Your task to perform on an android device: Open network settings Image 0: 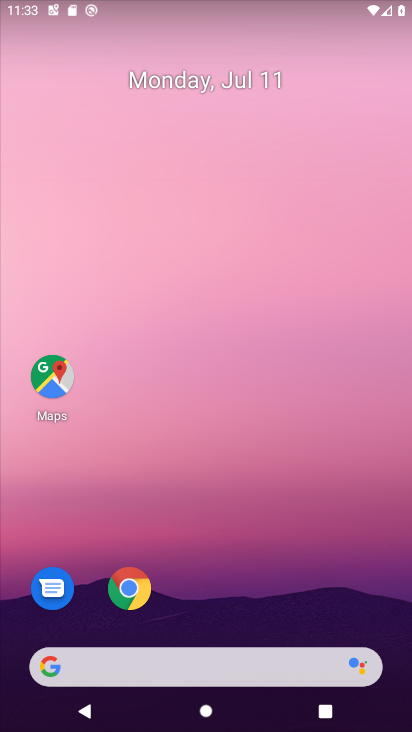
Step 0: click (278, 365)
Your task to perform on an android device: Open network settings Image 1: 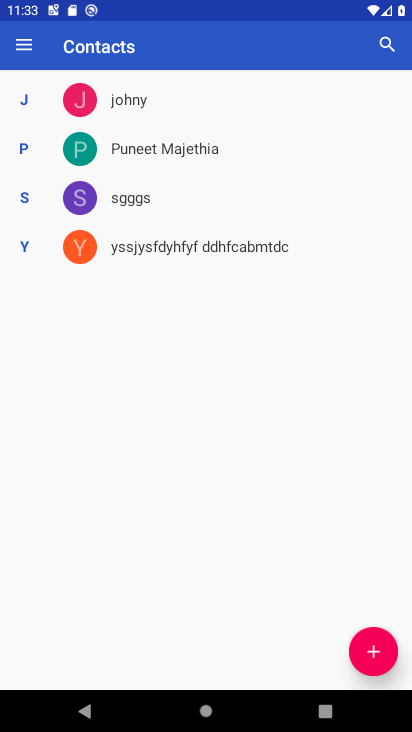
Step 1: press back button
Your task to perform on an android device: Open network settings Image 2: 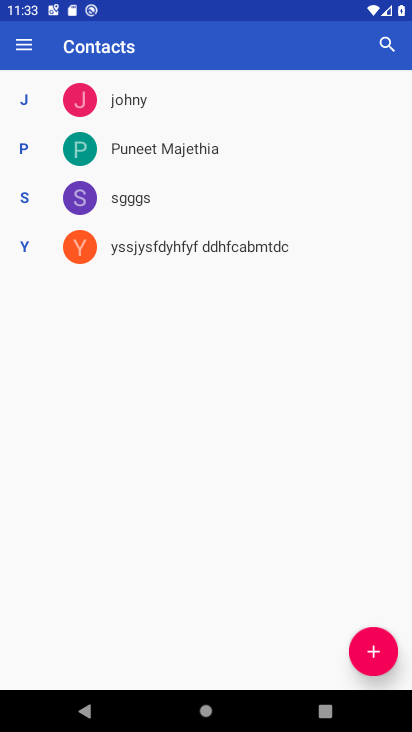
Step 2: press back button
Your task to perform on an android device: Open network settings Image 3: 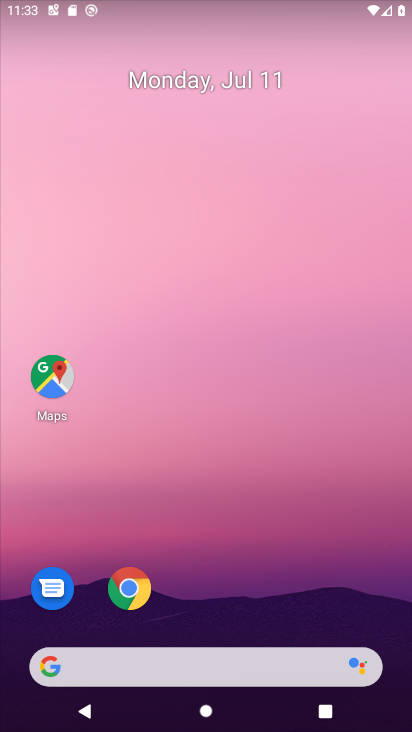
Step 3: drag from (276, 707) to (276, 279)
Your task to perform on an android device: Open network settings Image 4: 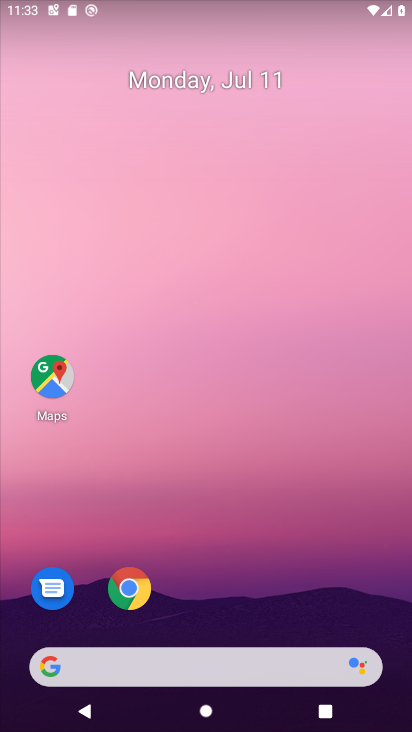
Step 4: drag from (258, 586) to (208, 87)
Your task to perform on an android device: Open network settings Image 5: 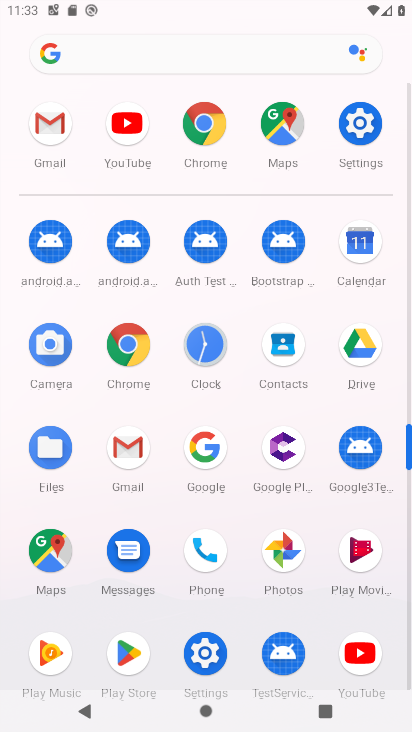
Step 5: click (355, 134)
Your task to perform on an android device: Open network settings Image 6: 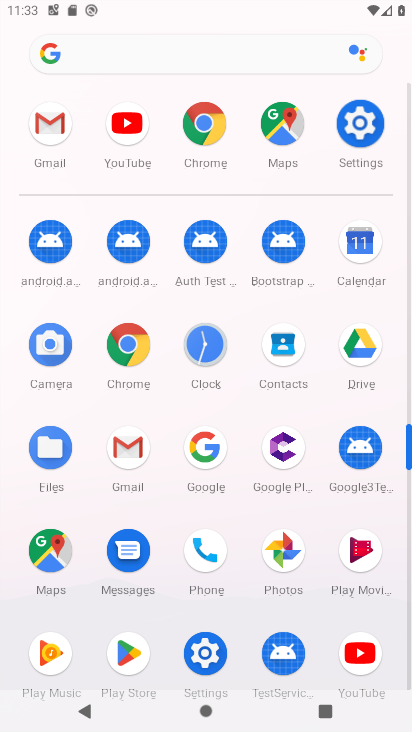
Step 6: click (359, 142)
Your task to perform on an android device: Open network settings Image 7: 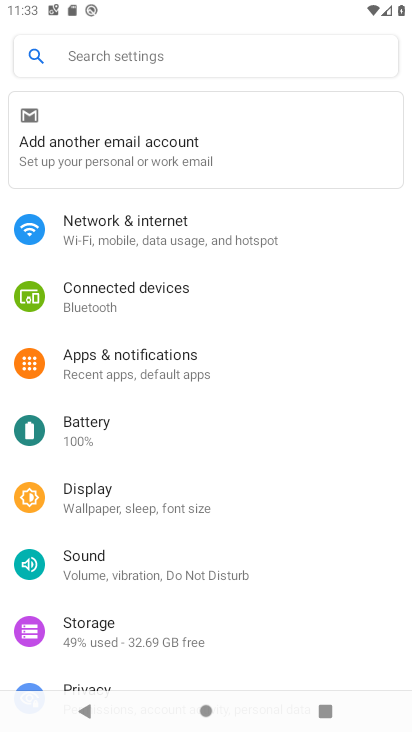
Step 7: click (121, 239)
Your task to perform on an android device: Open network settings Image 8: 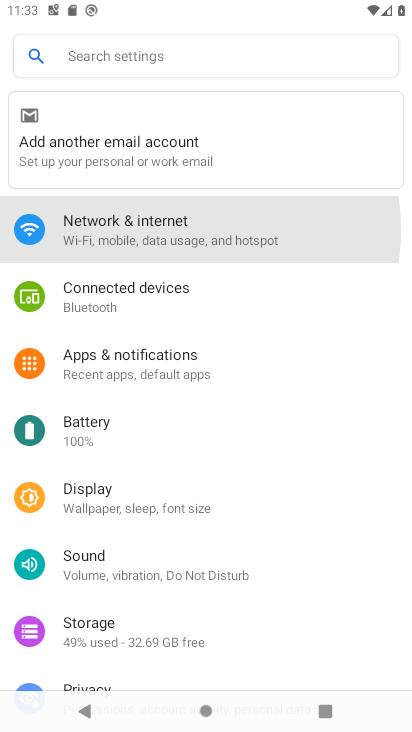
Step 8: click (120, 240)
Your task to perform on an android device: Open network settings Image 9: 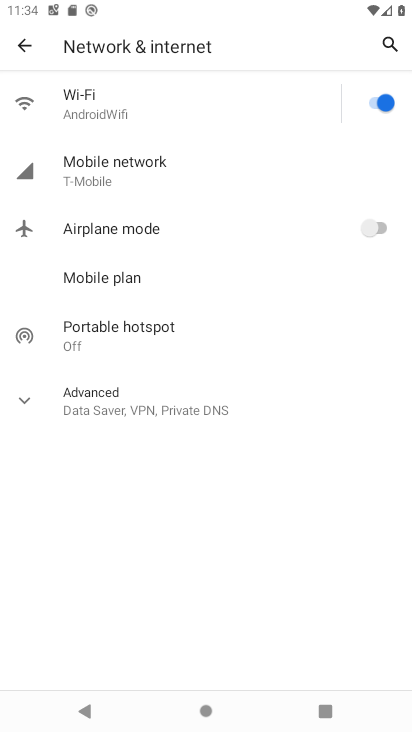
Step 9: task complete